Your task to perform on an android device: Toggle the flashlight Image 0: 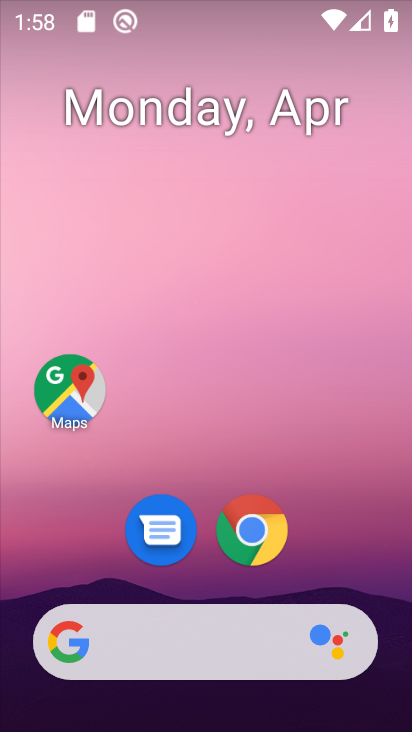
Step 0: drag from (218, 597) to (138, 20)
Your task to perform on an android device: Toggle the flashlight Image 1: 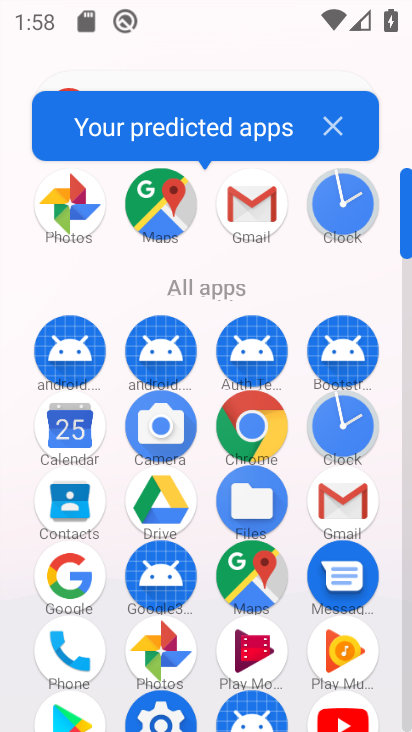
Step 1: click (171, 704)
Your task to perform on an android device: Toggle the flashlight Image 2: 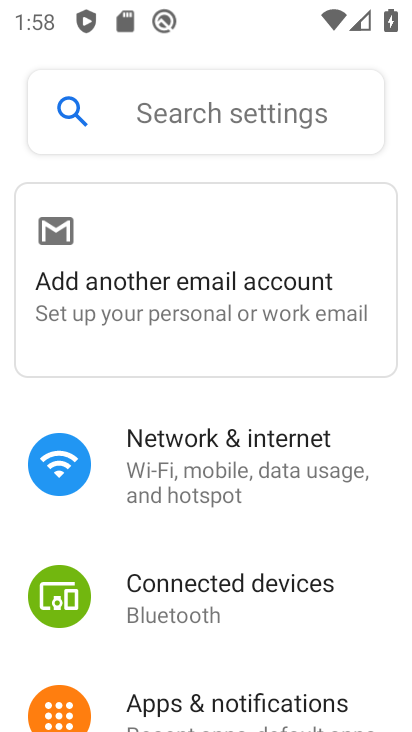
Step 2: task complete